Your task to perform on an android device: turn off improve location accuracy Image 0: 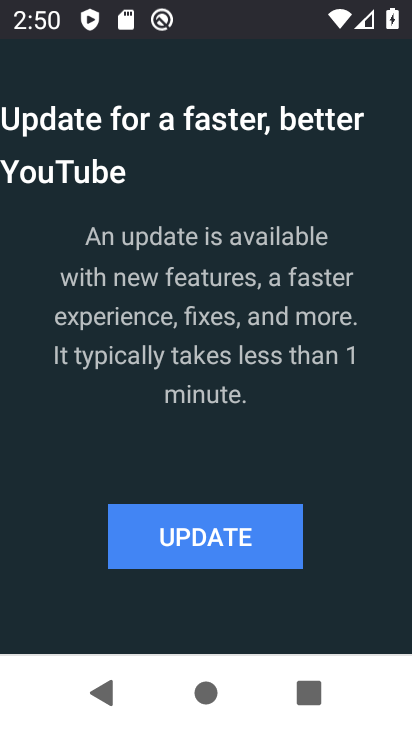
Step 0: press home button
Your task to perform on an android device: turn off improve location accuracy Image 1: 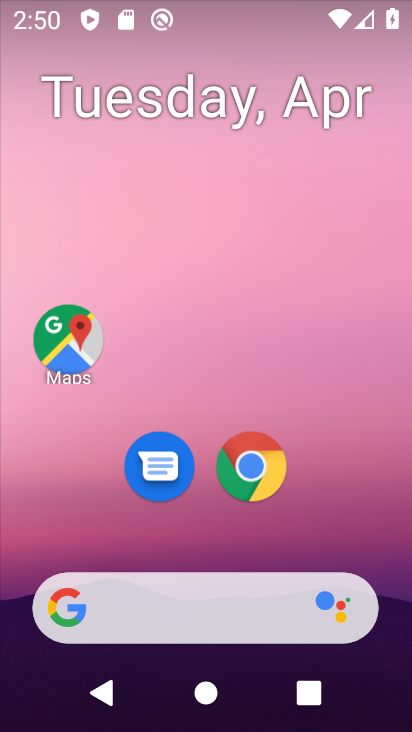
Step 1: drag from (223, 553) to (321, 79)
Your task to perform on an android device: turn off improve location accuracy Image 2: 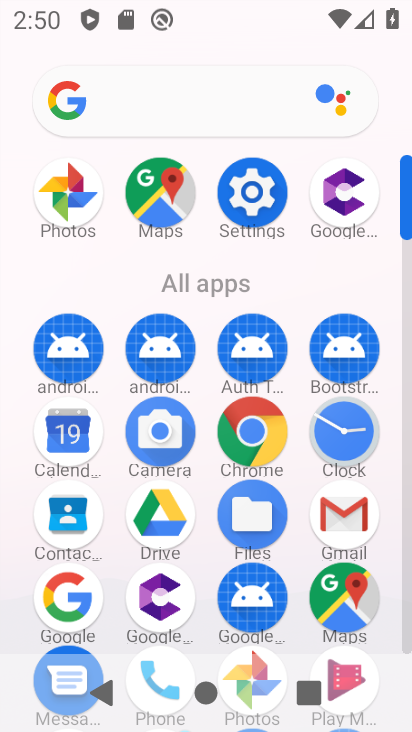
Step 2: click (240, 192)
Your task to perform on an android device: turn off improve location accuracy Image 3: 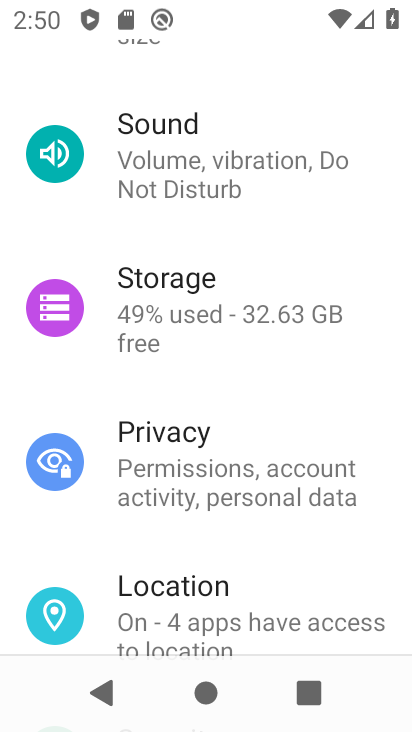
Step 3: click (166, 597)
Your task to perform on an android device: turn off improve location accuracy Image 4: 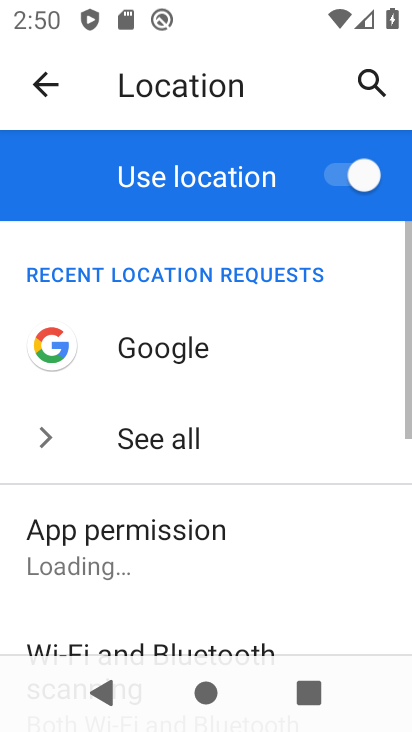
Step 4: drag from (184, 584) to (155, 146)
Your task to perform on an android device: turn off improve location accuracy Image 5: 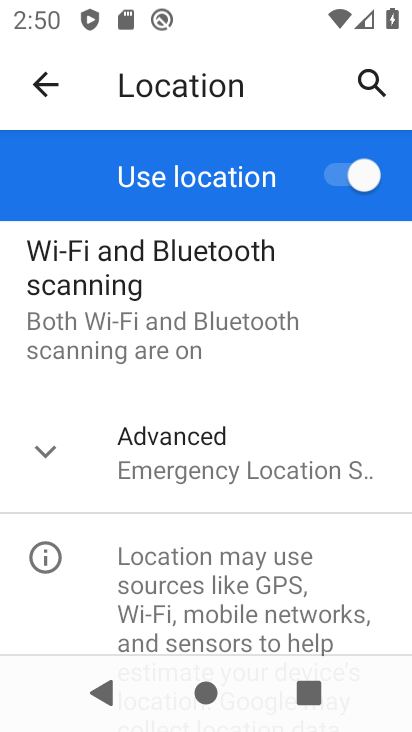
Step 5: click (147, 458)
Your task to perform on an android device: turn off improve location accuracy Image 6: 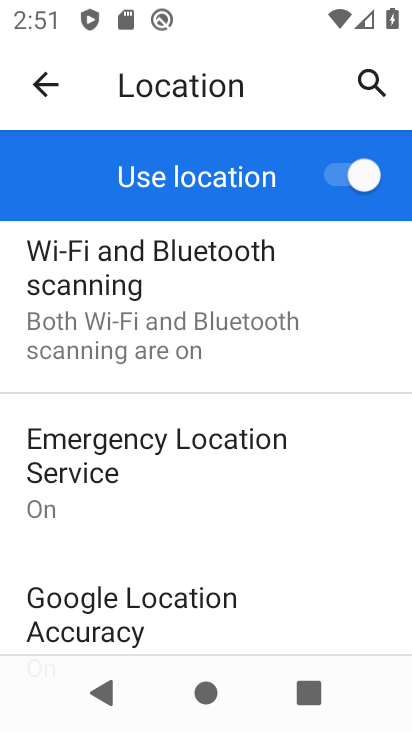
Step 6: click (177, 603)
Your task to perform on an android device: turn off improve location accuracy Image 7: 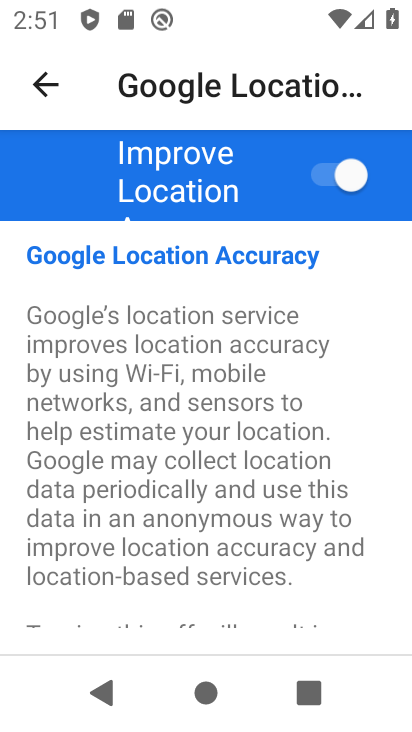
Step 7: click (330, 182)
Your task to perform on an android device: turn off improve location accuracy Image 8: 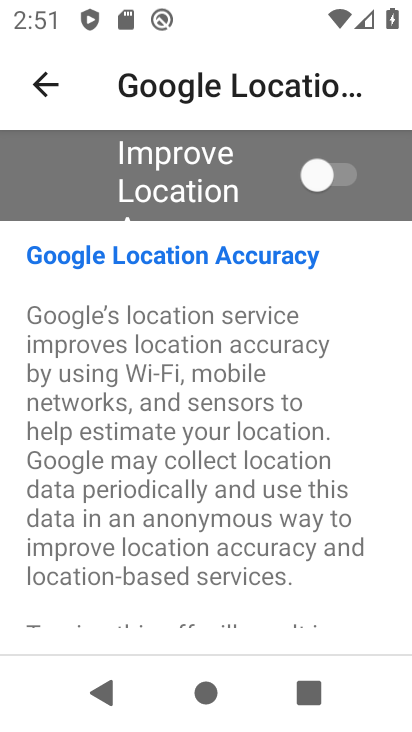
Step 8: task complete